Your task to perform on an android device: See recent photos Image 0: 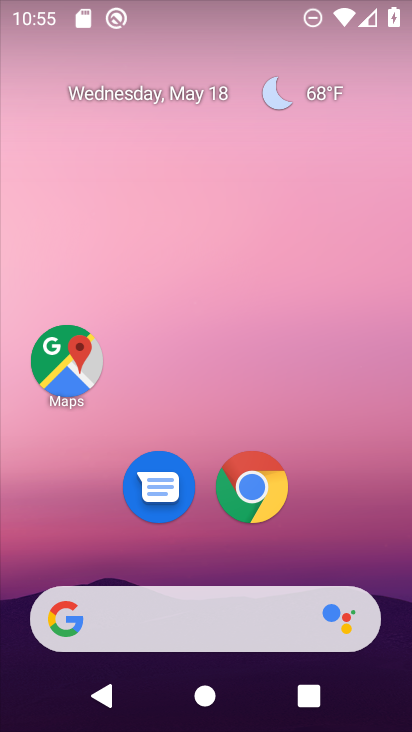
Step 0: drag from (362, 477) to (305, 191)
Your task to perform on an android device: See recent photos Image 1: 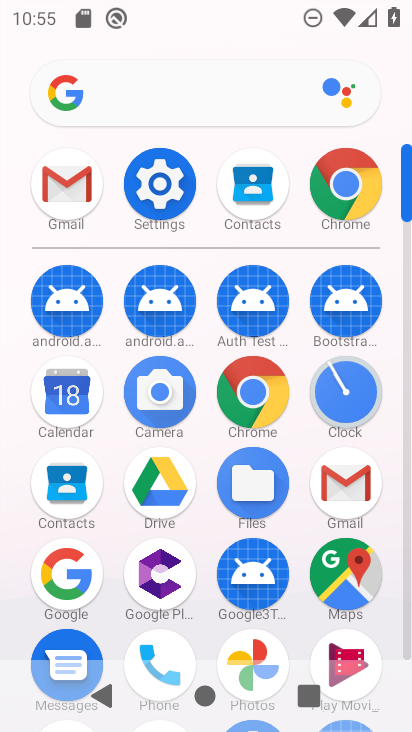
Step 1: drag from (211, 613) to (182, 348)
Your task to perform on an android device: See recent photos Image 2: 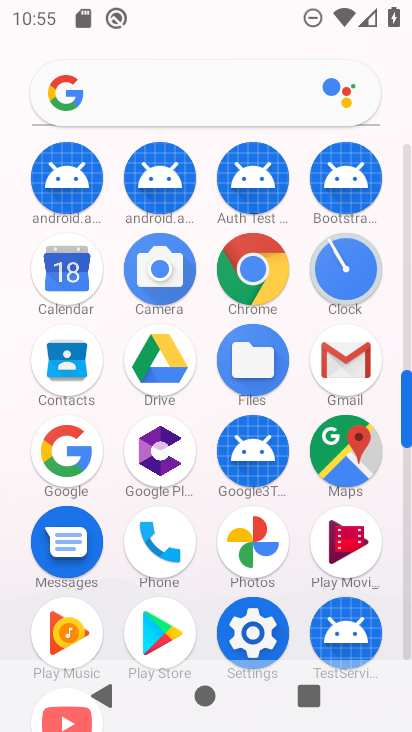
Step 2: click (239, 532)
Your task to perform on an android device: See recent photos Image 3: 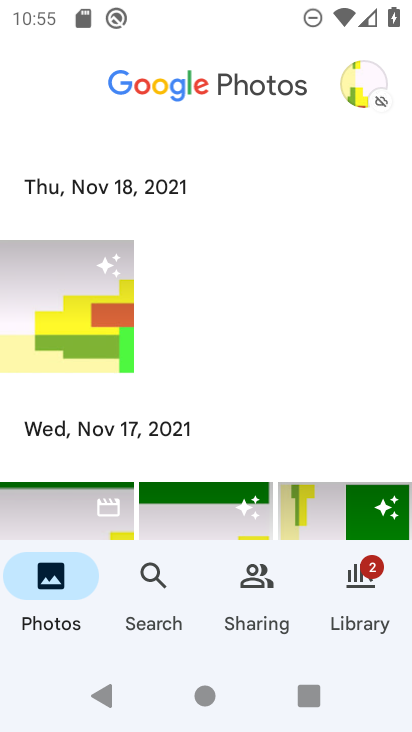
Step 3: task complete